Your task to perform on an android device: turn on javascript in the chrome app Image 0: 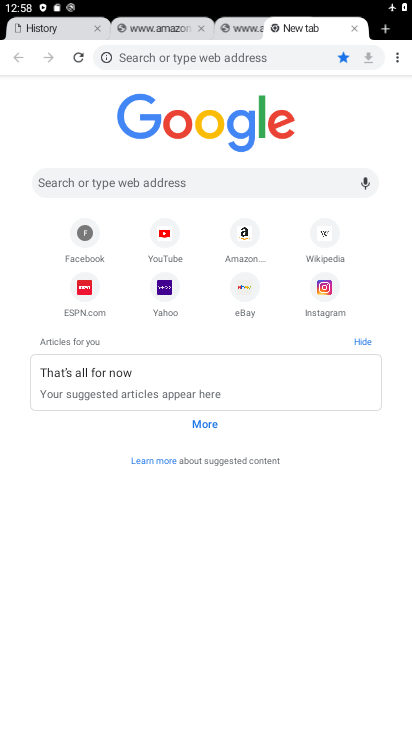
Step 0: click (399, 55)
Your task to perform on an android device: turn on javascript in the chrome app Image 1: 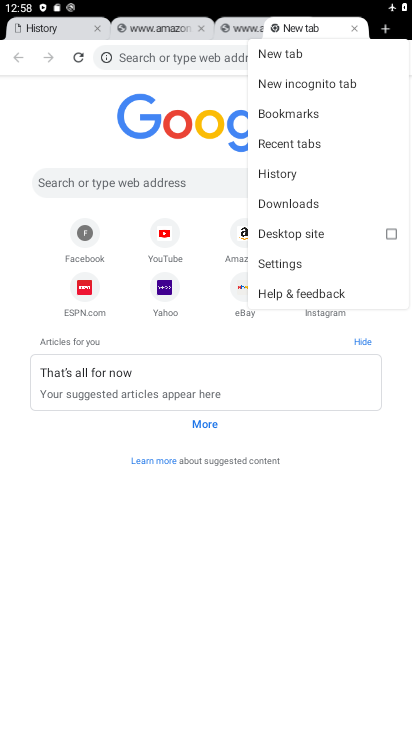
Step 1: click (306, 265)
Your task to perform on an android device: turn on javascript in the chrome app Image 2: 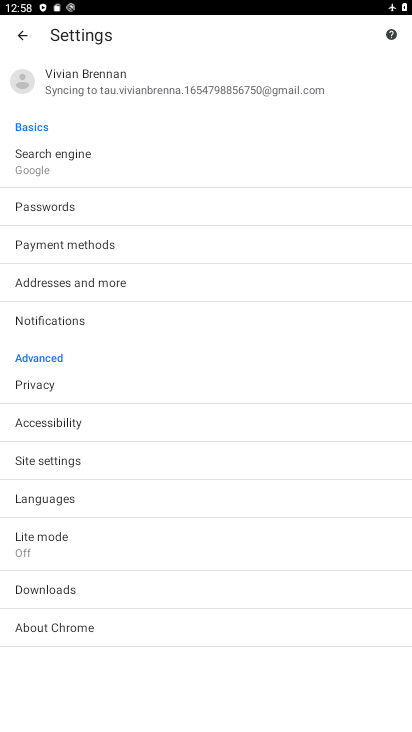
Step 2: click (116, 465)
Your task to perform on an android device: turn on javascript in the chrome app Image 3: 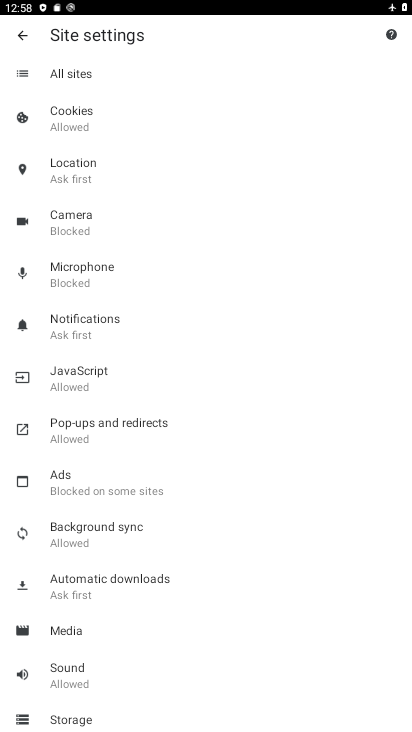
Step 3: click (97, 369)
Your task to perform on an android device: turn on javascript in the chrome app Image 4: 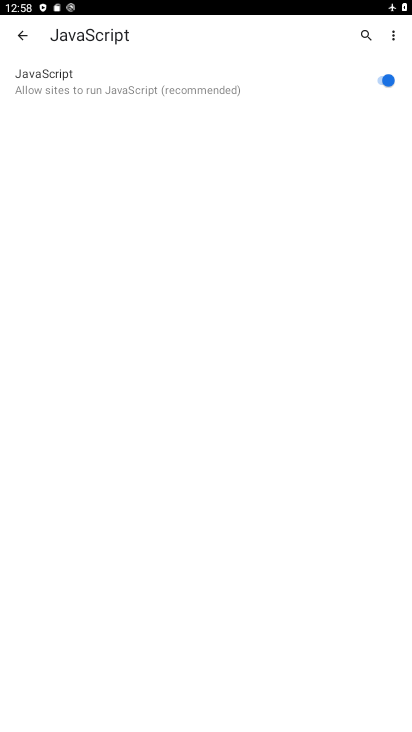
Step 4: task complete